Your task to perform on an android device: add a contact Image 0: 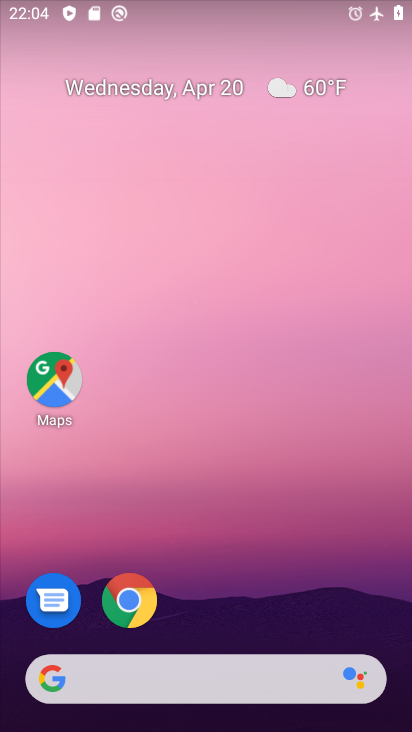
Step 0: drag from (243, 643) to (367, 337)
Your task to perform on an android device: add a contact Image 1: 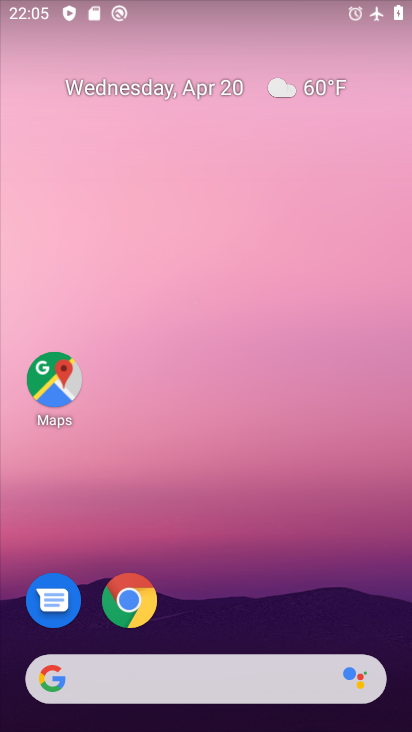
Step 1: drag from (199, 641) to (173, 17)
Your task to perform on an android device: add a contact Image 2: 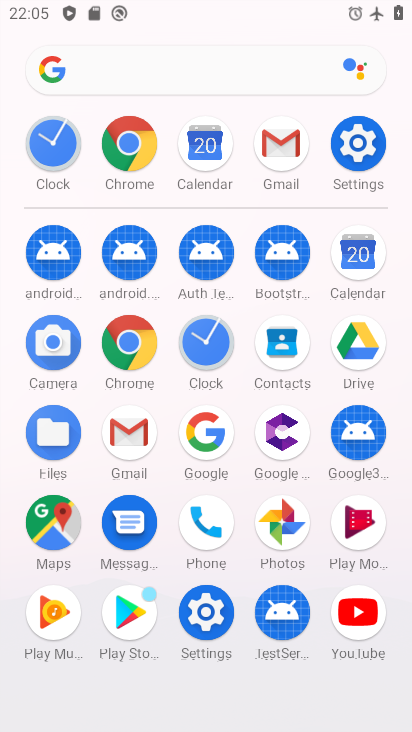
Step 2: click (196, 531)
Your task to perform on an android device: add a contact Image 3: 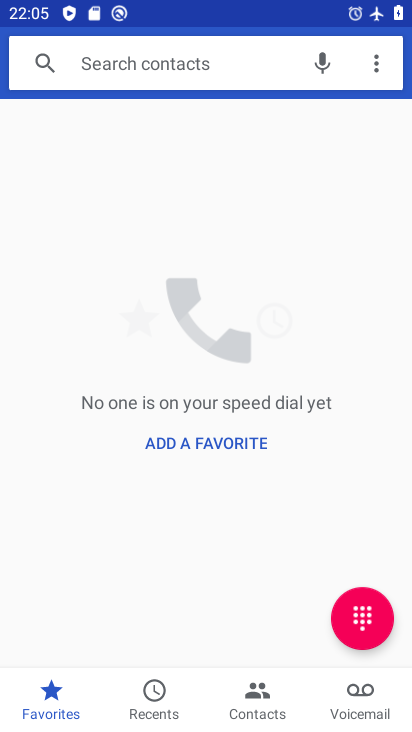
Step 3: click (268, 701)
Your task to perform on an android device: add a contact Image 4: 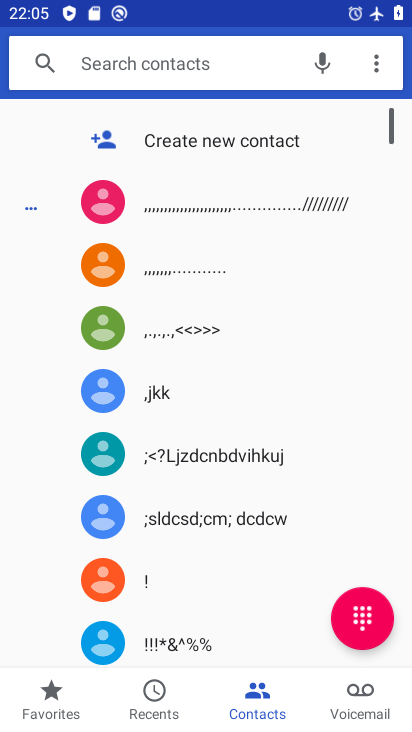
Step 4: click (177, 134)
Your task to perform on an android device: add a contact Image 5: 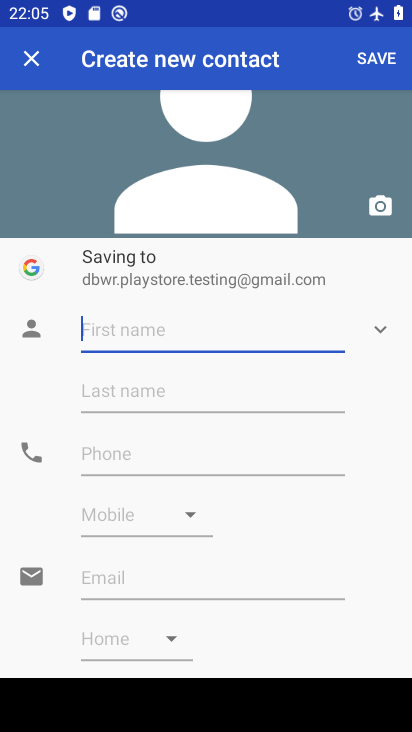
Step 5: type "j"
Your task to perform on an android device: add a contact Image 6: 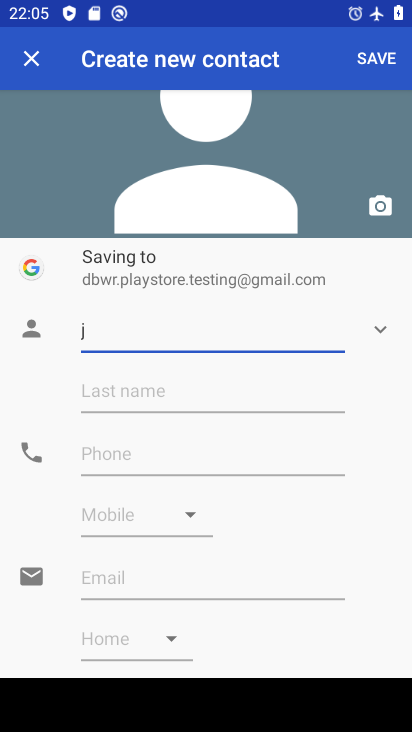
Step 6: click (294, 467)
Your task to perform on an android device: add a contact Image 7: 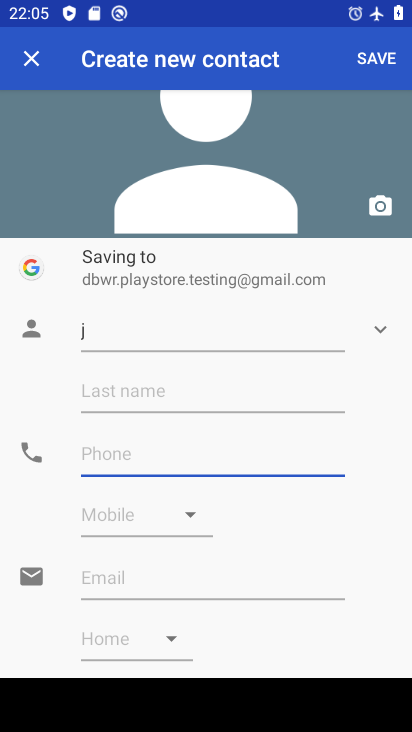
Step 7: type "988"
Your task to perform on an android device: add a contact Image 8: 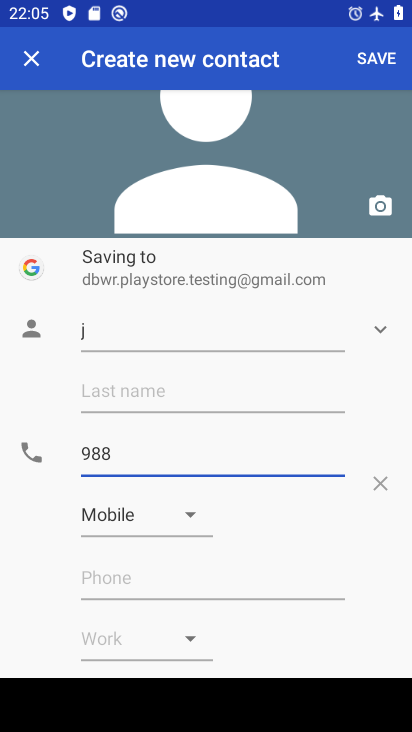
Step 8: click (393, 65)
Your task to perform on an android device: add a contact Image 9: 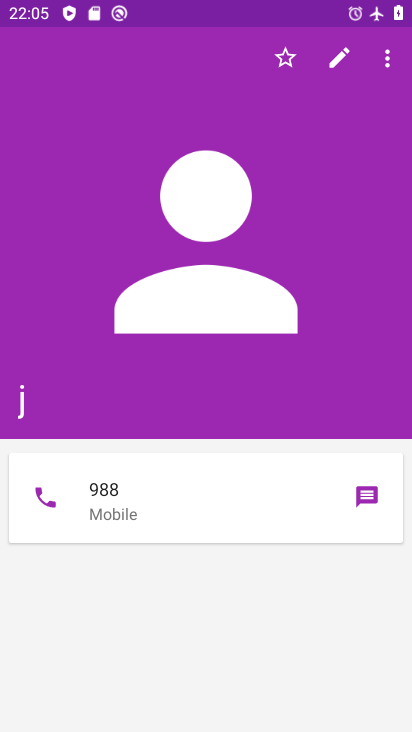
Step 9: task complete